Your task to perform on an android device: open the mobile data screen to see how much data has been used Image 0: 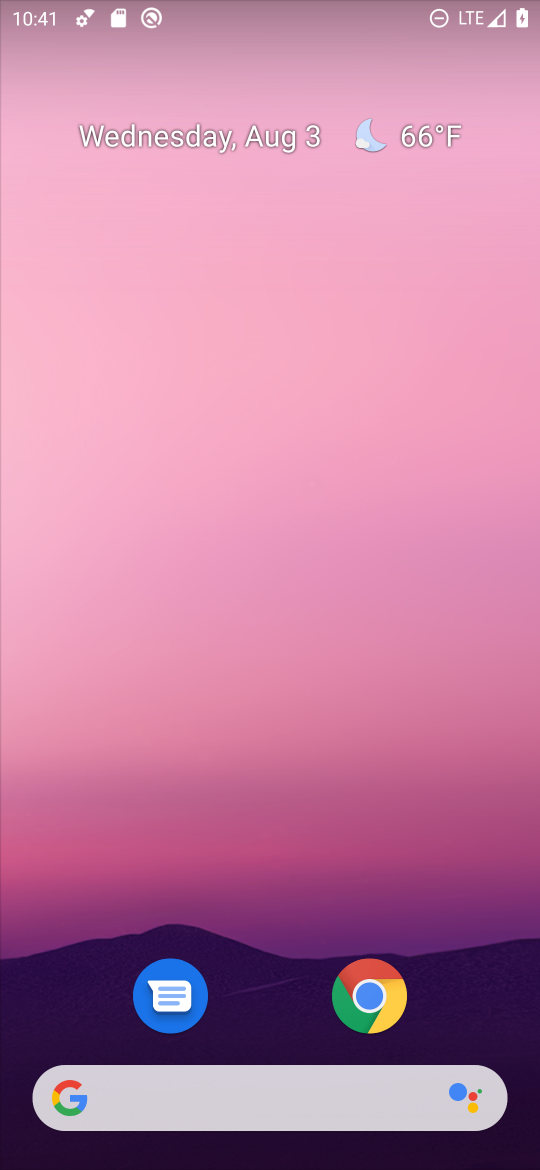
Step 0: drag from (281, 830) to (363, 5)
Your task to perform on an android device: open the mobile data screen to see how much data has been used Image 1: 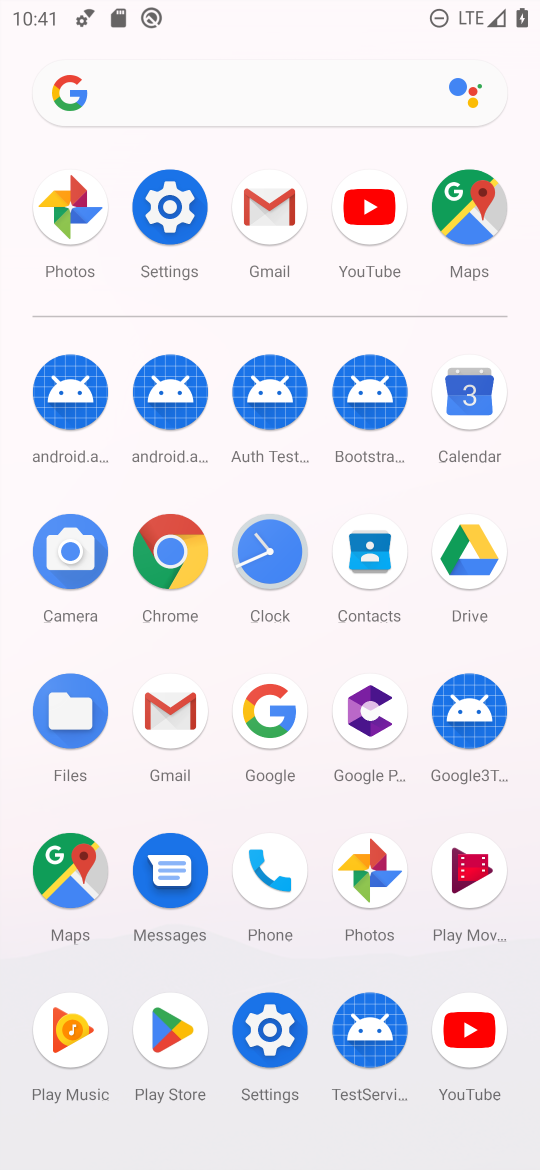
Step 1: click (155, 210)
Your task to perform on an android device: open the mobile data screen to see how much data has been used Image 2: 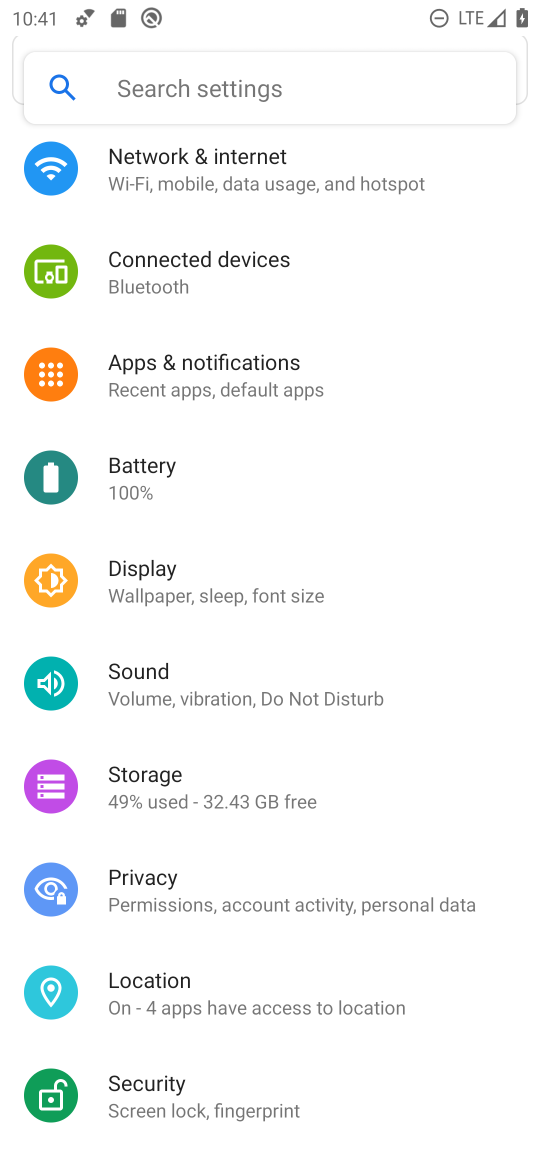
Step 2: drag from (354, 382) to (320, 602)
Your task to perform on an android device: open the mobile data screen to see how much data has been used Image 3: 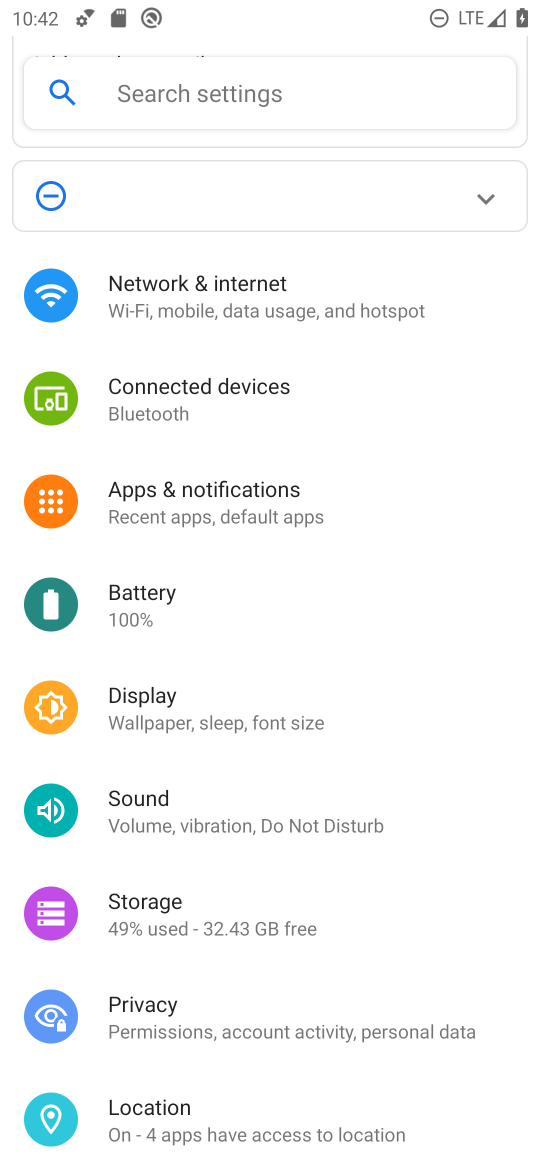
Step 3: click (312, 309)
Your task to perform on an android device: open the mobile data screen to see how much data has been used Image 4: 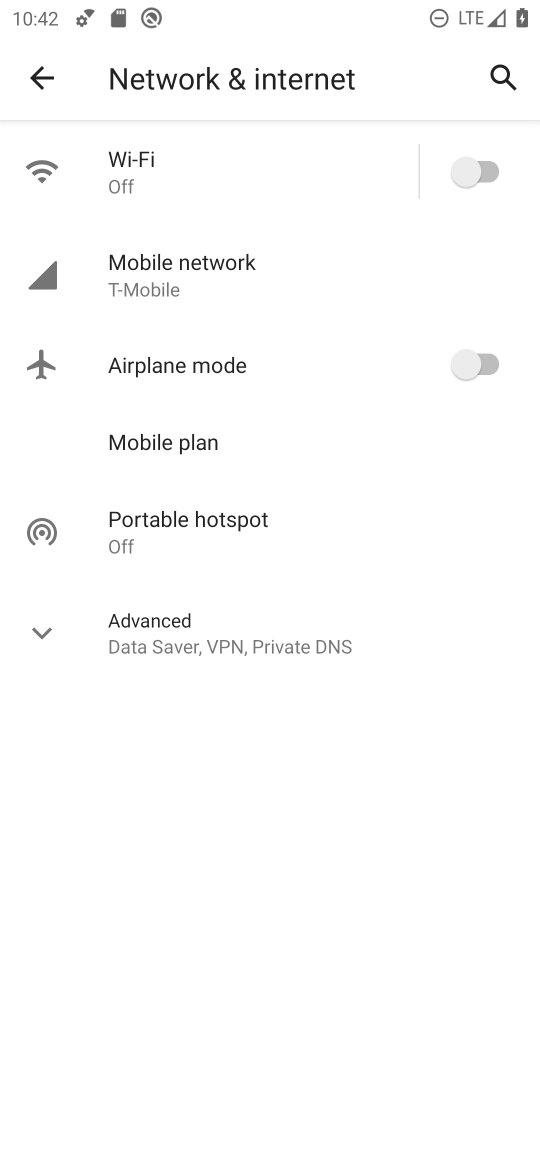
Step 4: click (226, 261)
Your task to perform on an android device: open the mobile data screen to see how much data has been used Image 5: 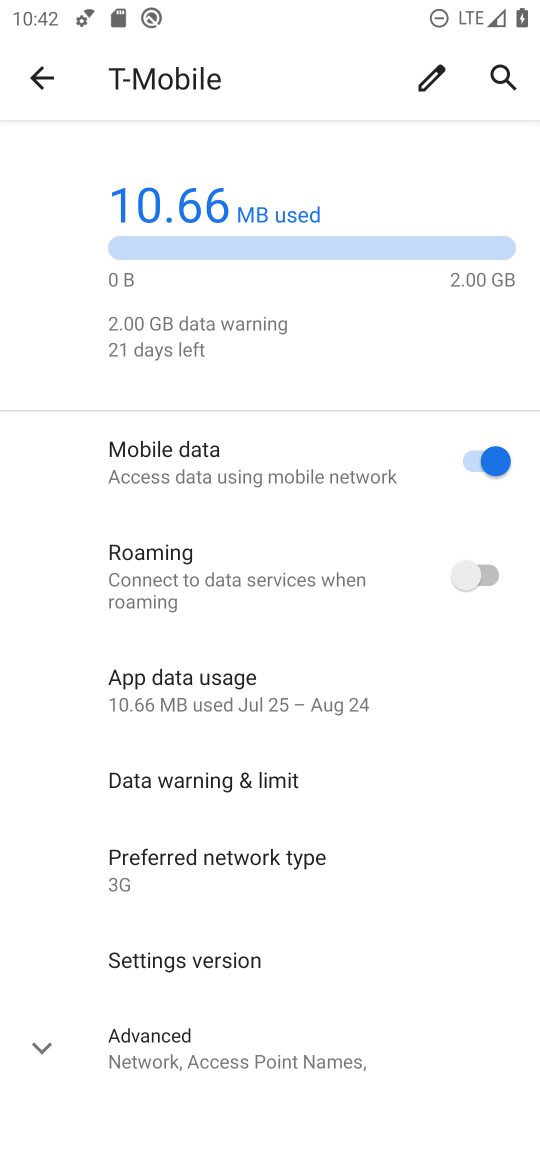
Step 5: task complete